Your task to perform on an android device: turn on sleep mode Image 0: 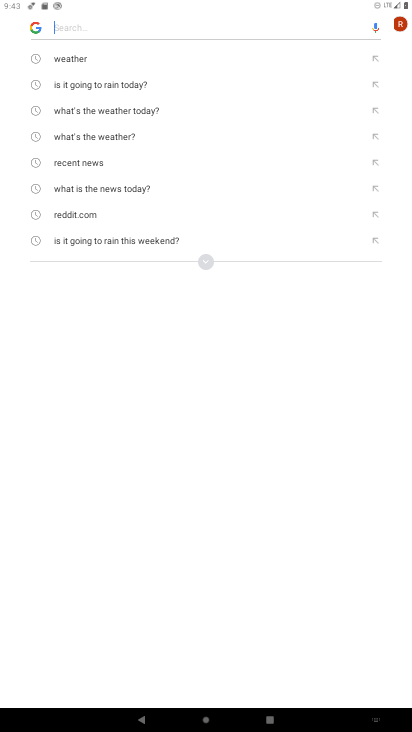
Step 0: press home button
Your task to perform on an android device: turn on sleep mode Image 1: 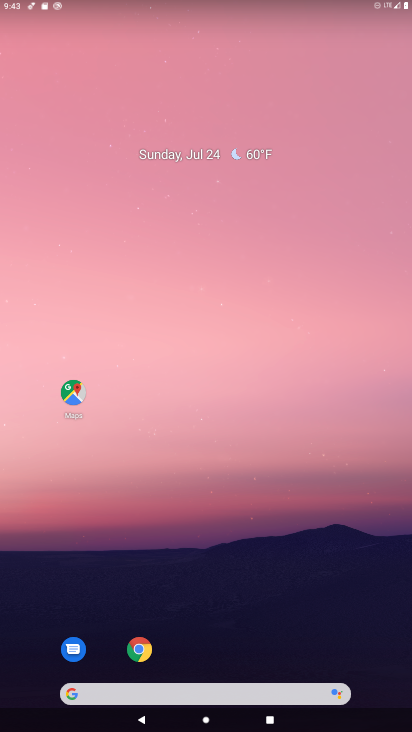
Step 1: drag from (225, 595) to (241, 146)
Your task to perform on an android device: turn on sleep mode Image 2: 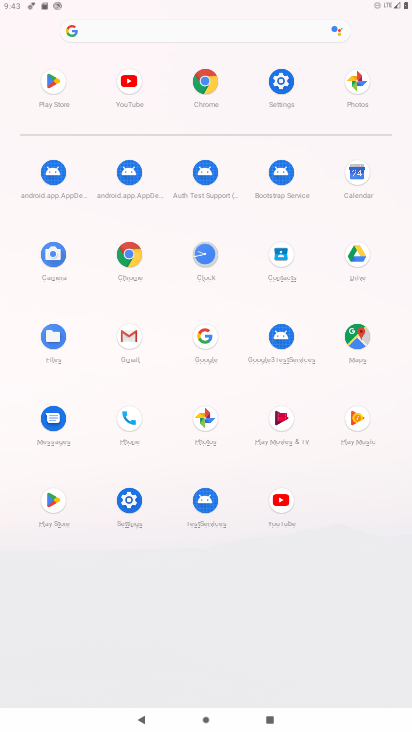
Step 2: click (282, 85)
Your task to perform on an android device: turn on sleep mode Image 3: 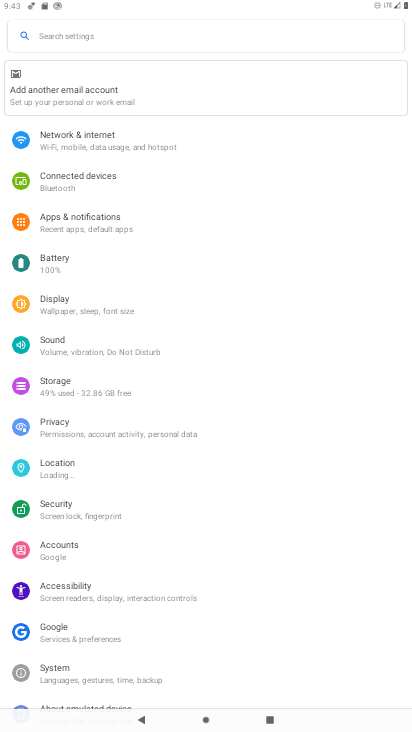
Step 3: click (52, 306)
Your task to perform on an android device: turn on sleep mode Image 4: 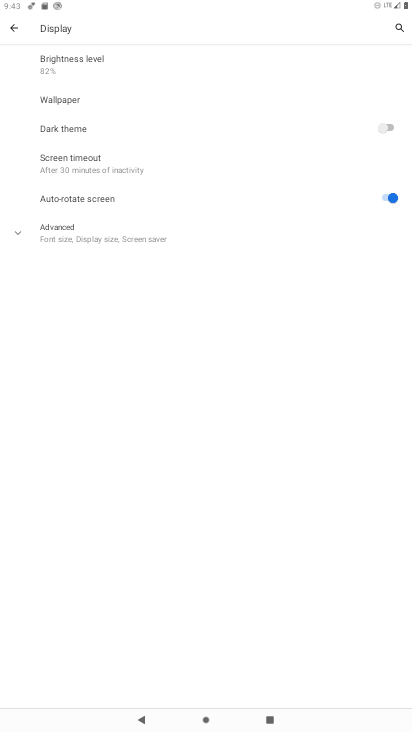
Step 4: click (73, 166)
Your task to perform on an android device: turn on sleep mode Image 5: 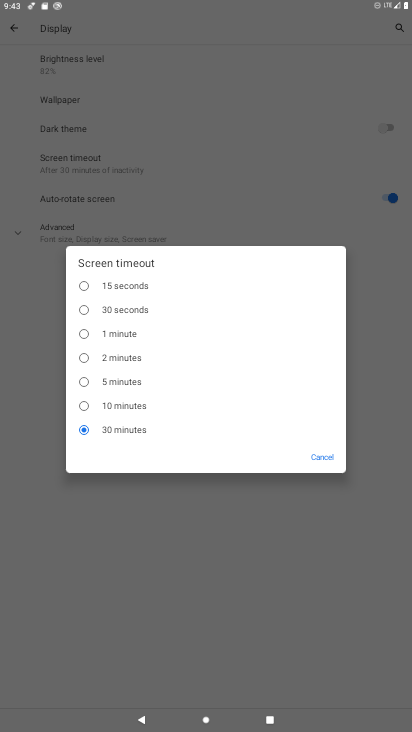
Step 5: task complete